Your task to perform on an android device: manage bookmarks in the chrome app Image 0: 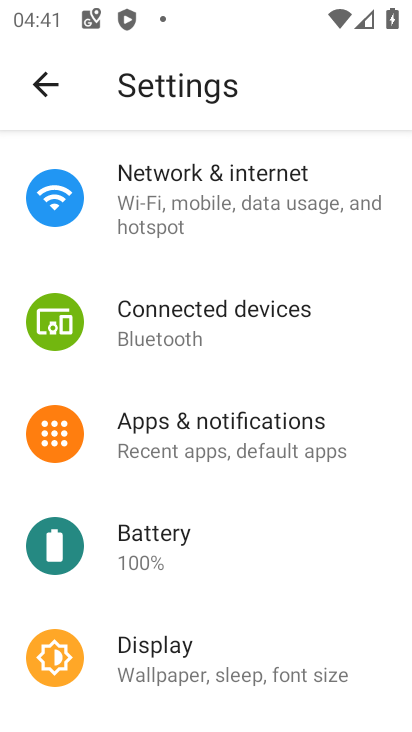
Step 0: press home button
Your task to perform on an android device: manage bookmarks in the chrome app Image 1: 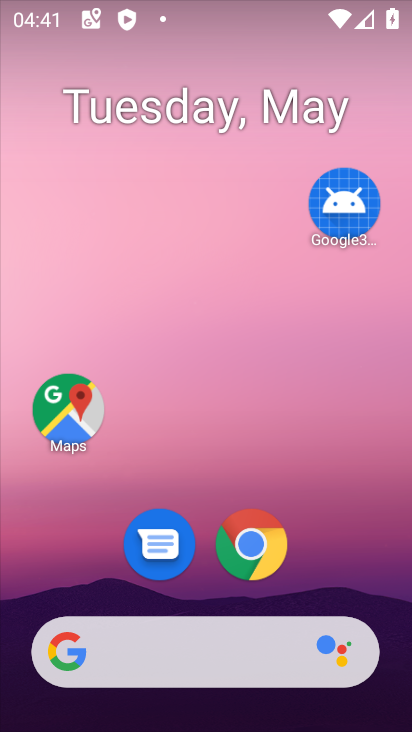
Step 1: click (248, 562)
Your task to perform on an android device: manage bookmarks in the chrome app Image 2: 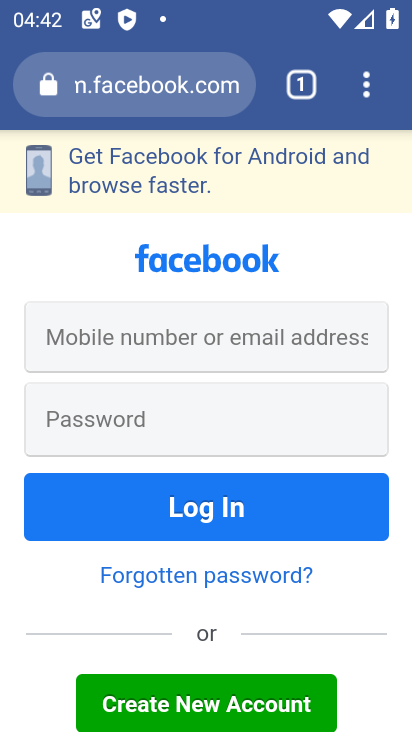
Step 2: click (377, 102)
Your task to perform on an android device: manage bookmarks in the chrome app Image 3: 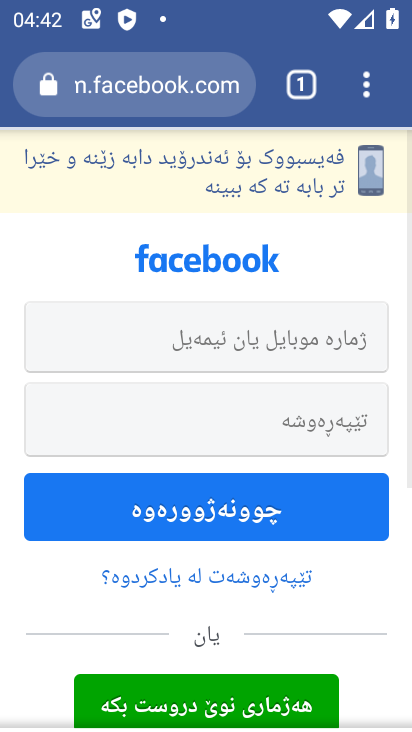
Step 3: click (371, 88)
Your task to perform on an android device: manage bookmarks in the chrome app Image 4: 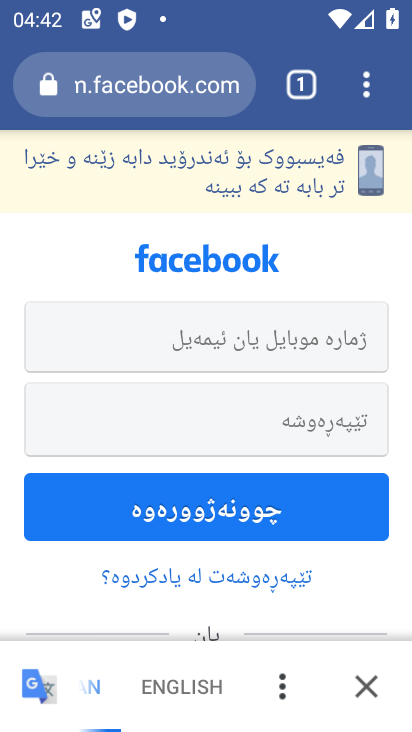
Step 4: click (368, 75)
Your task to perform on an android device: manage bookmarks in the chrome app Image 5: 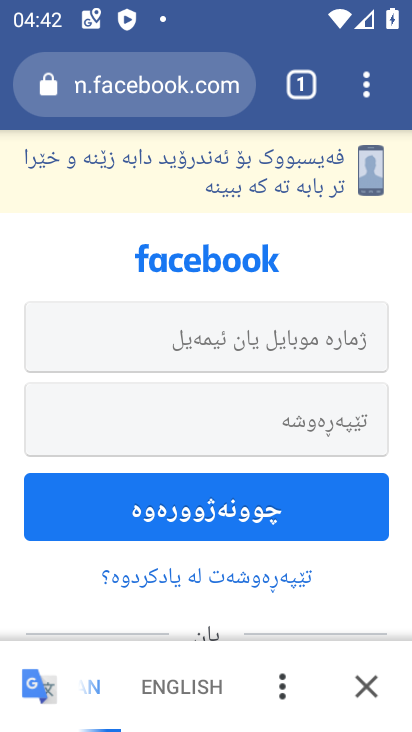
Step 5: task complete